Your task to perform on an android device: What's the weather? Image 0: 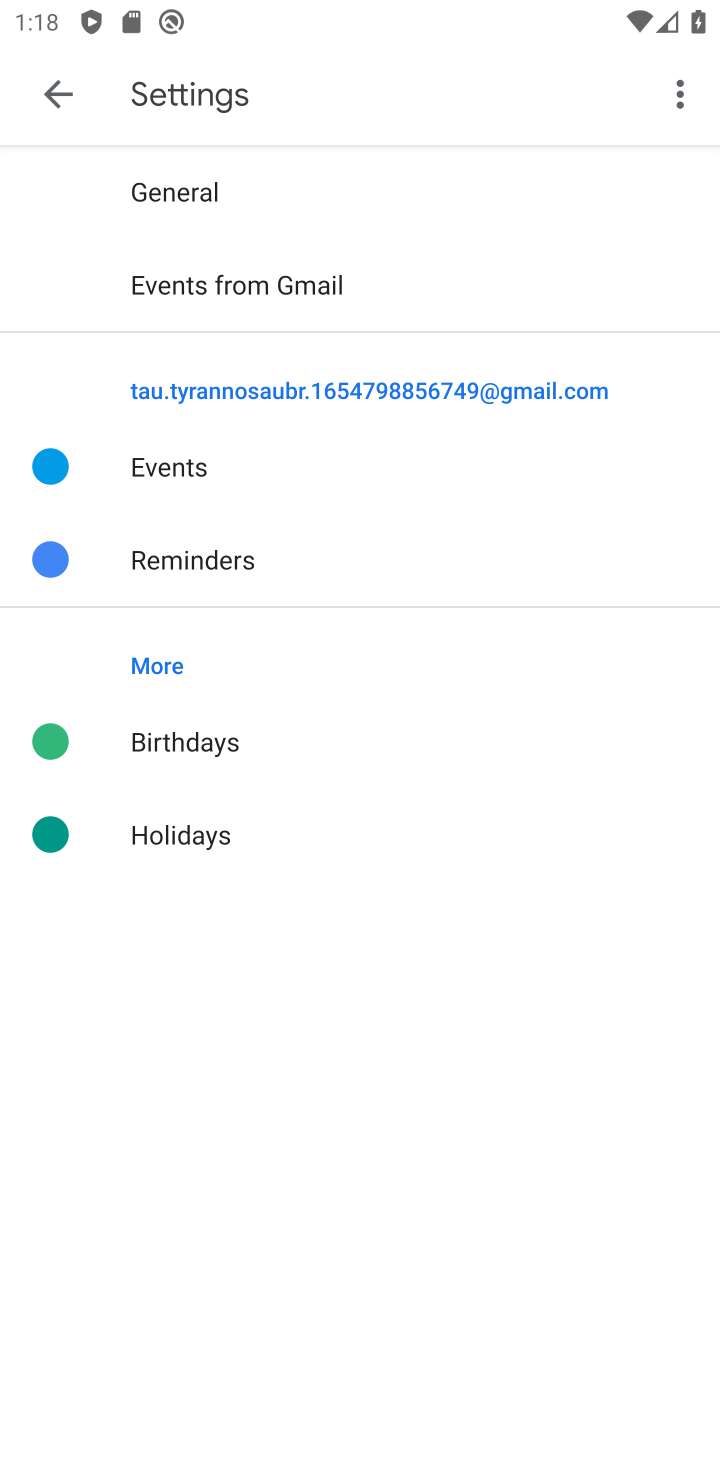
Step 0: press home button
Your task to perform on an android device: What's the weather? Image 1: 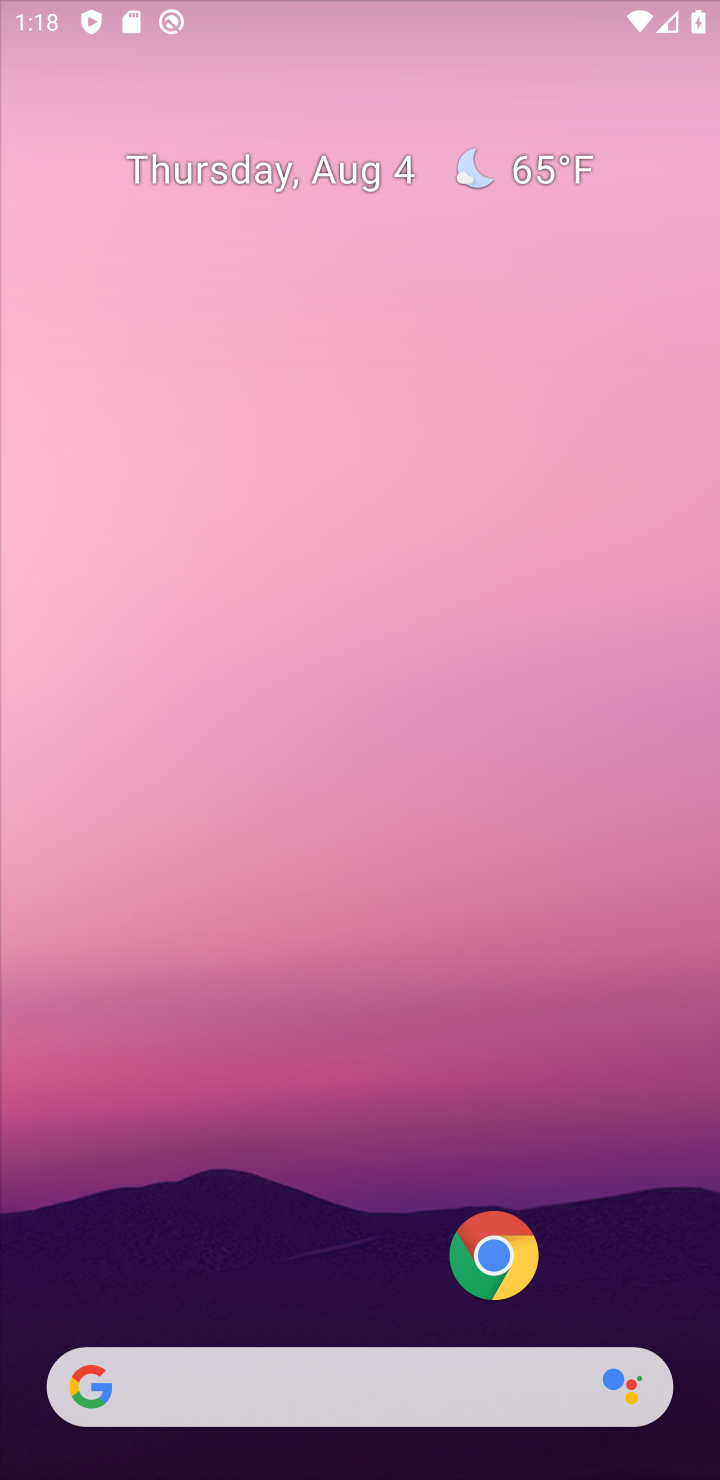
Step 1: drag from (255, 1306) to (336, 198)
Your task to perform on an android device: What's the weather? Image 2: 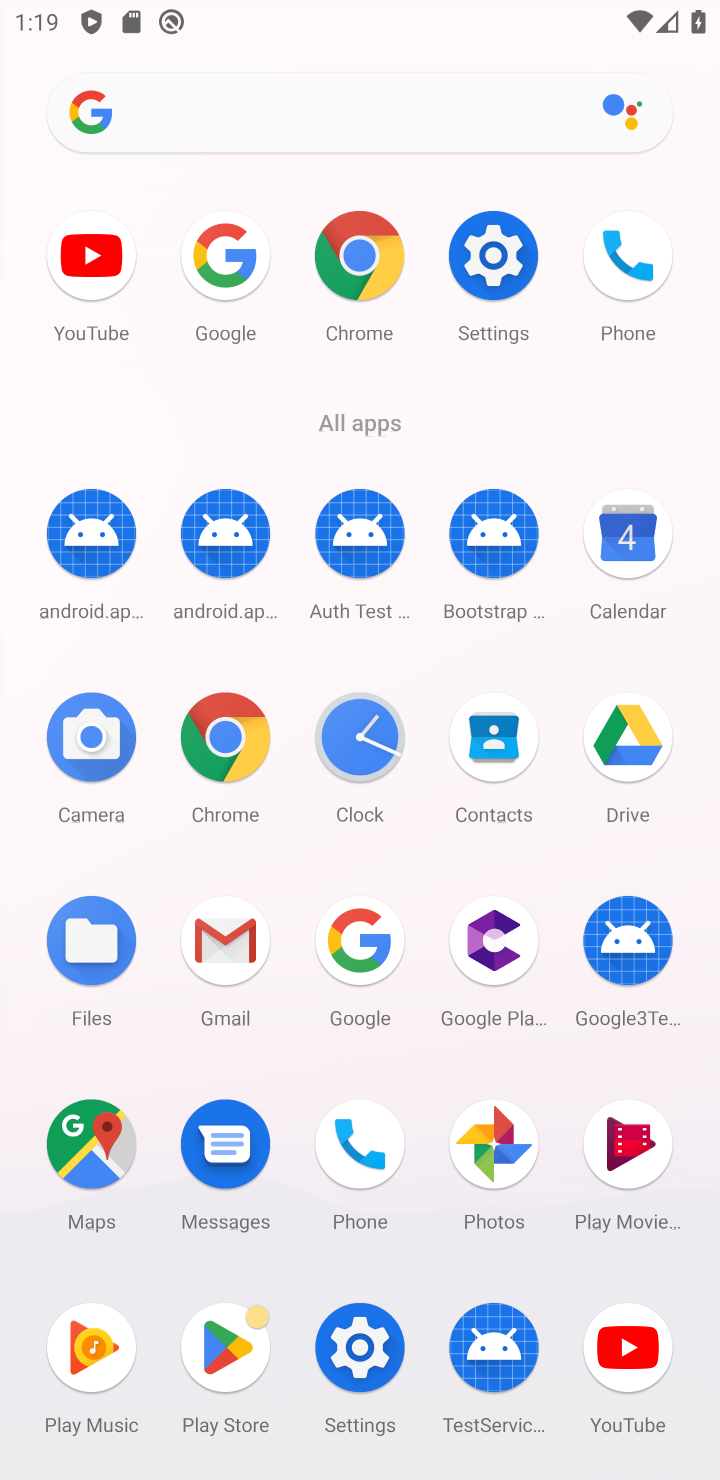
Step 2: click (354, 958)
Your task to perform on an android device: What's the weather? Image 3: 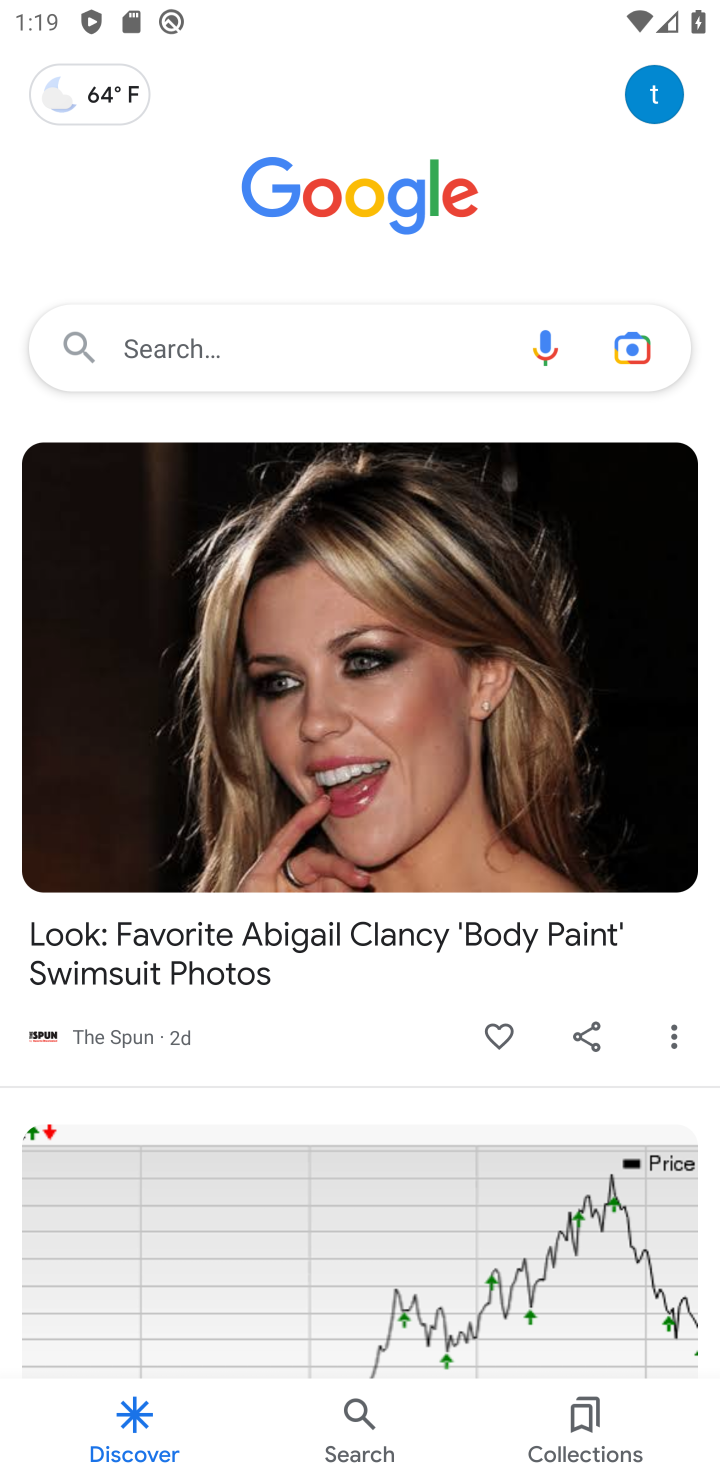
Step 3: click (78, 91)
Your task to perform on an android device: What's the weather? Image 4: 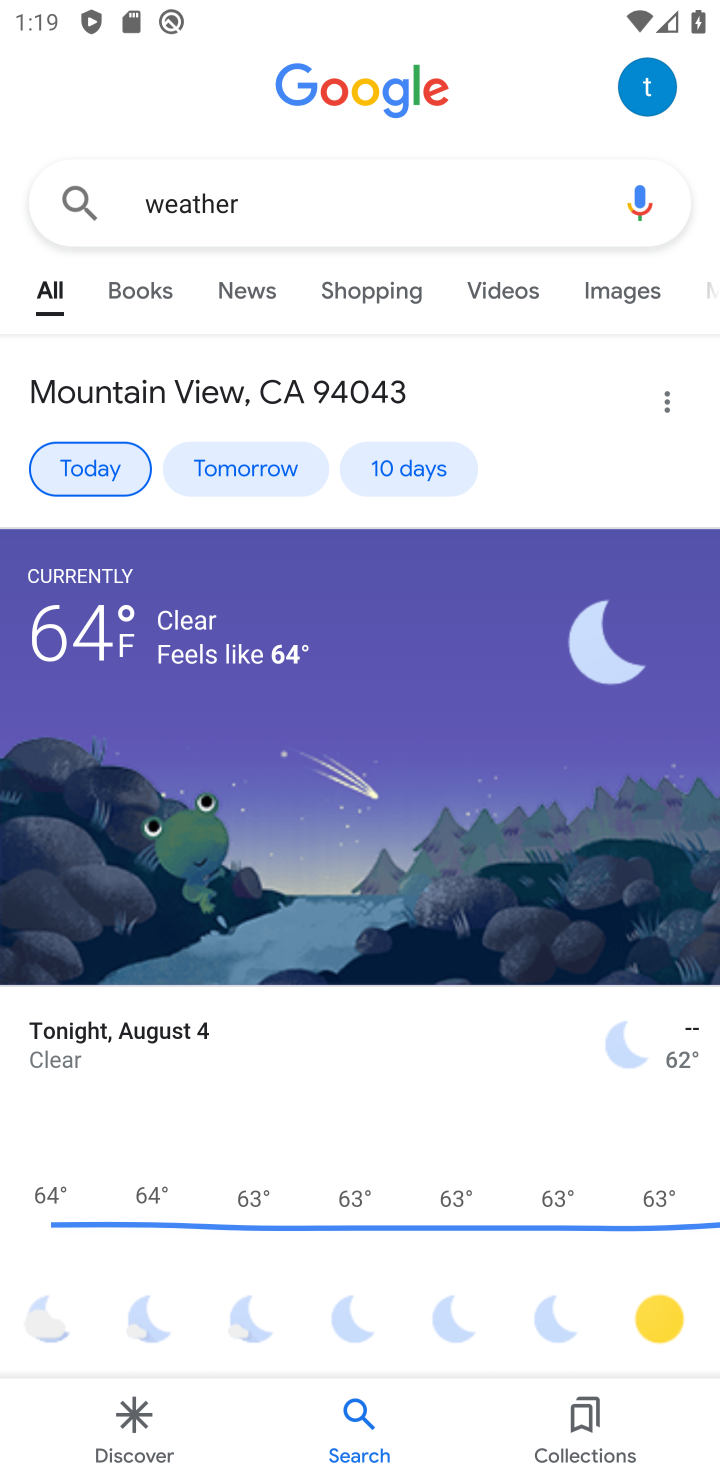
Step 4: task complete